Your task to perform on an android device: Open location settings Image 0: 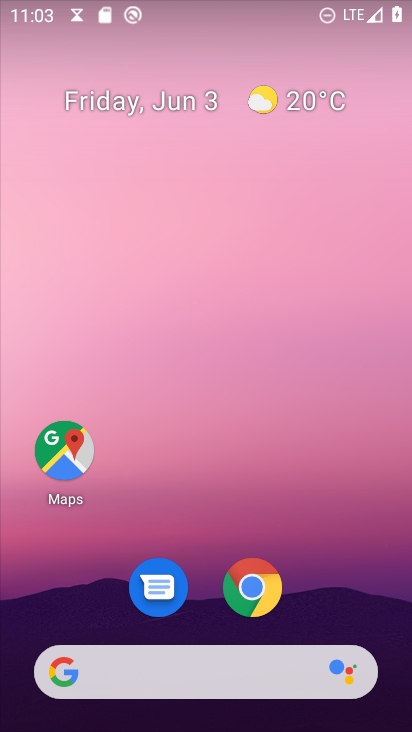
Step 0: drag from (344, 497) to (189, 19)
Your task to perform on an android device: Open location settings Image 1: 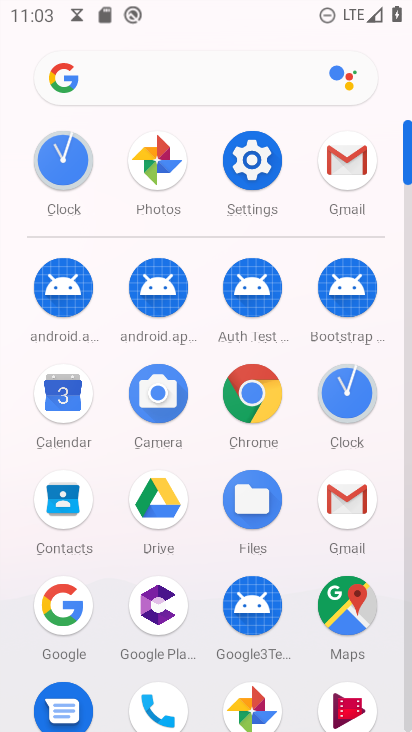
Step 1: click (285, 157)
Your task to perform on an android device: Open location settings Image 2: 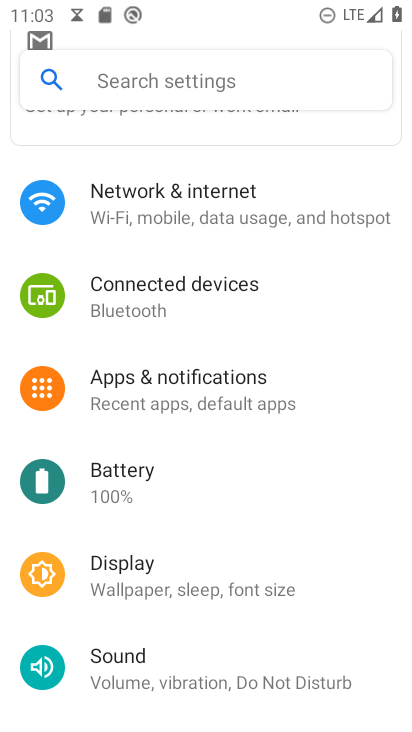
Step 2: drag from (282, 556) to (289, 22)
Your task to perform on an android device: Open location settings Image 3: 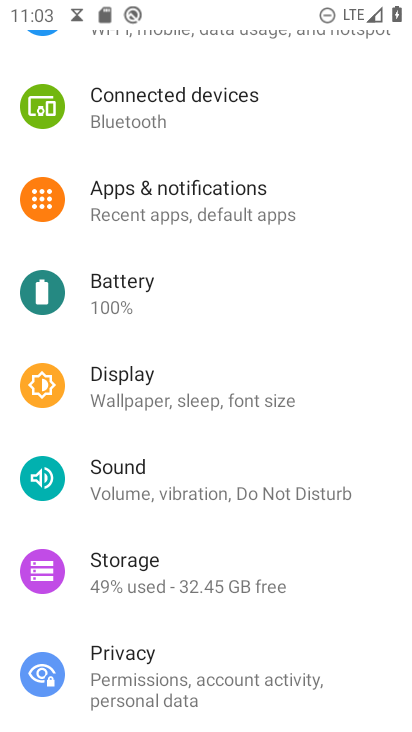
Step 3: drag from (280, 438) to (266, 64)
Your task to perform on an android device: Open location settings Image 4: 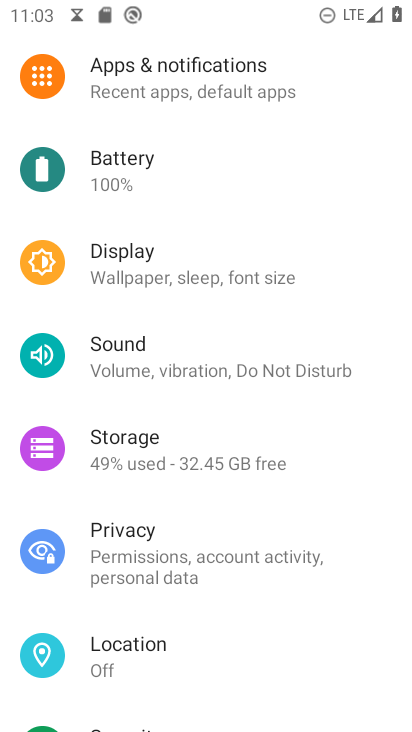
Step 4: click (174, 653)
Your task to perform on an android device: Open location settings Image 5: 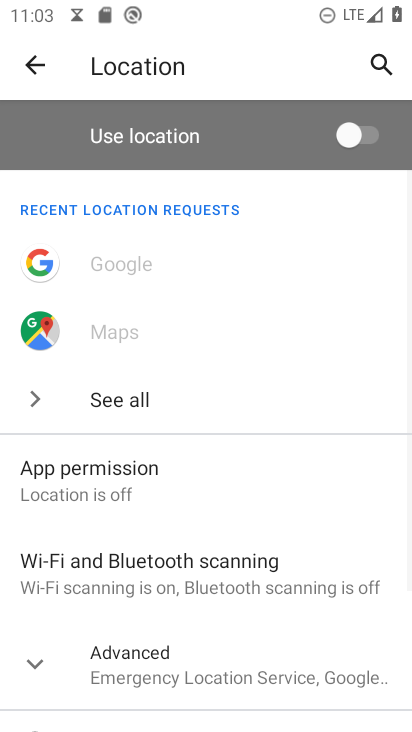
Step 5: task complete